Your task to perform on an android device: Open sound settings Image 0: 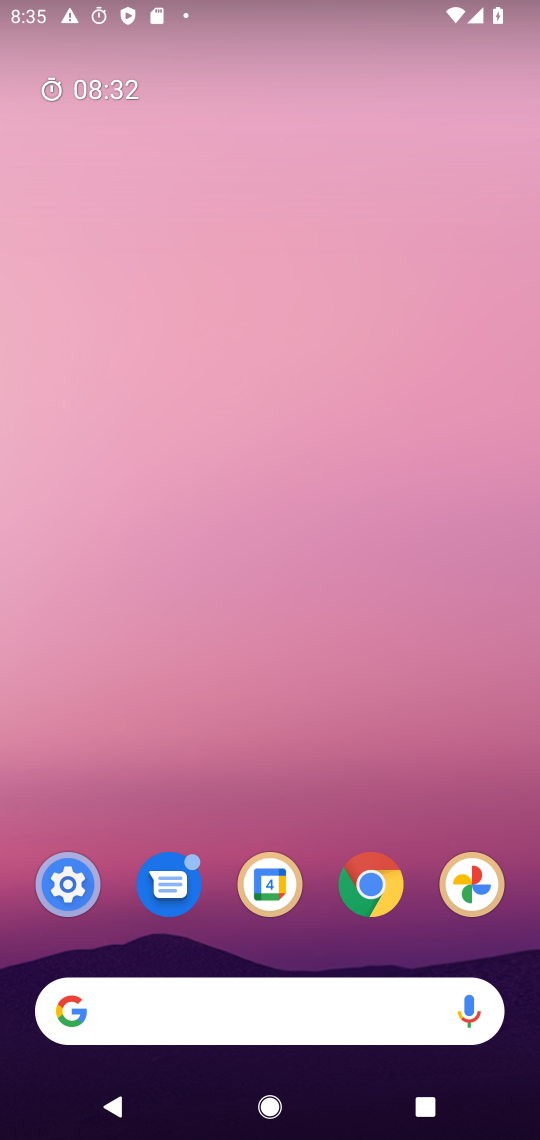
Step 0: press home button
Your task to perform on an android device: Open sound settings Image 1: 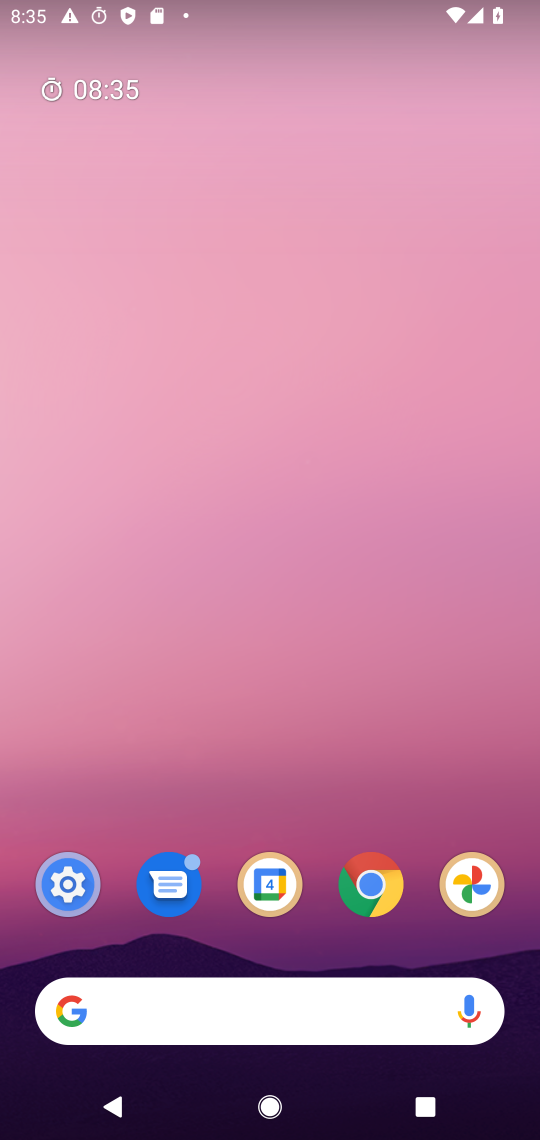
Step 1: click (82, 886)
Your task to perform on an android device: Open sound settings Image 2: 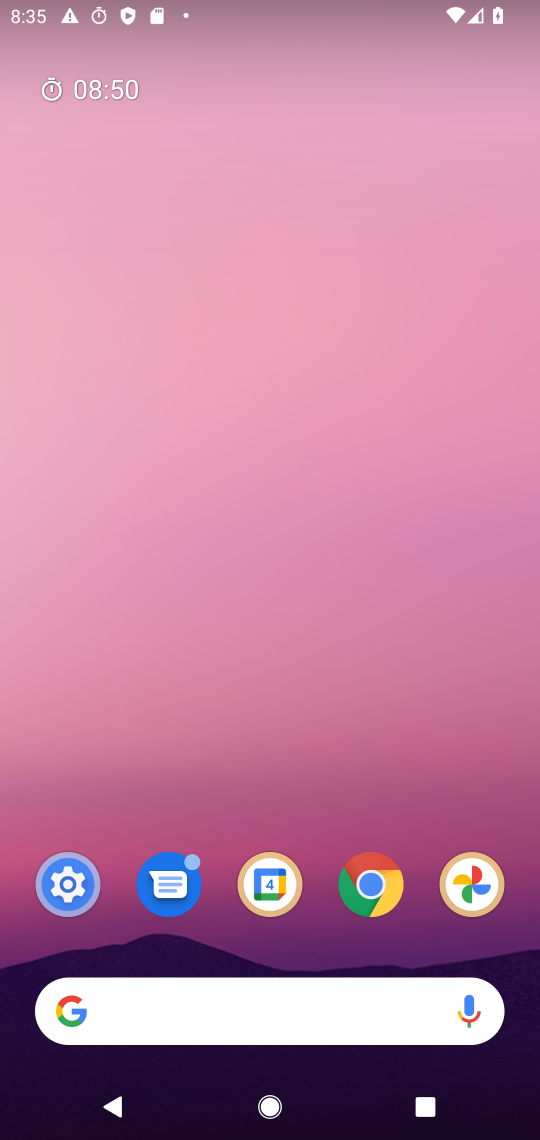
Step 2: click (70, 881)
Your task to perform on an android device: Open sound settings Image 3: 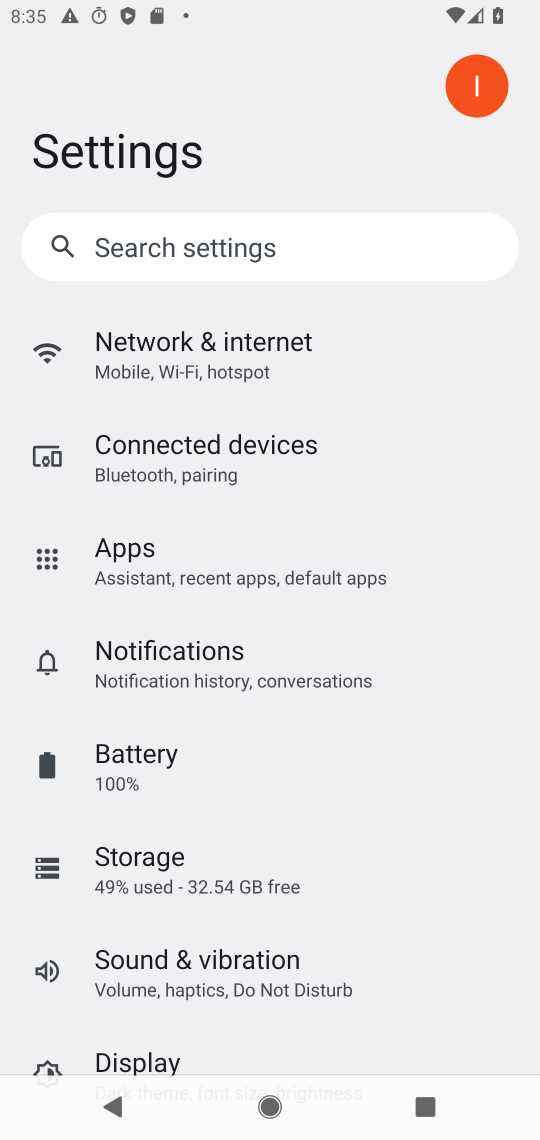
Step 3: click (183, 956)
Your task to perform on an android device: Open sound settings Image 4: 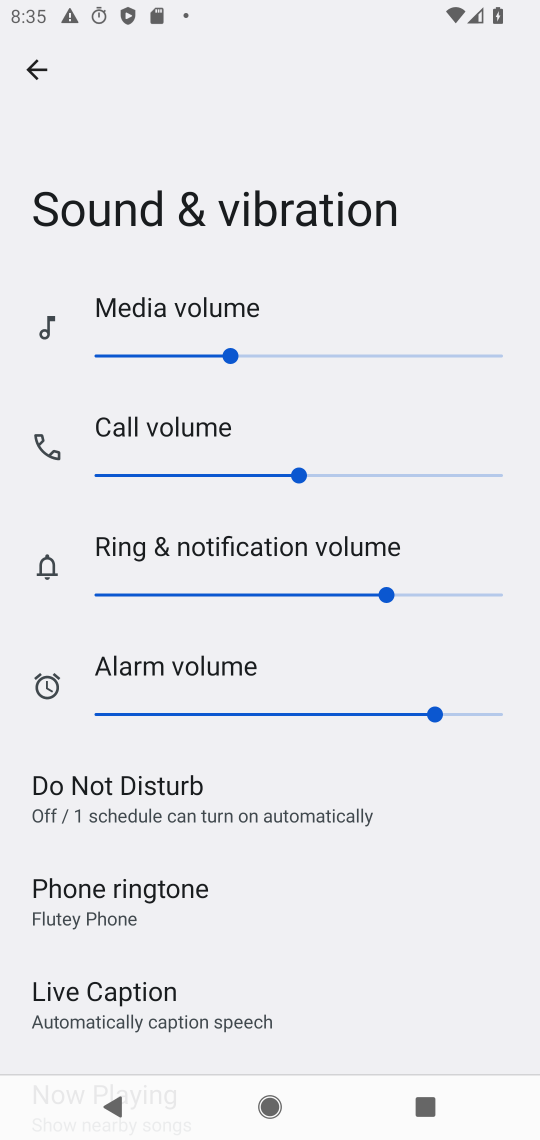
Step 4: task complete